Your task to perform on an android device: Show me the alarms in the clock app Image 0: 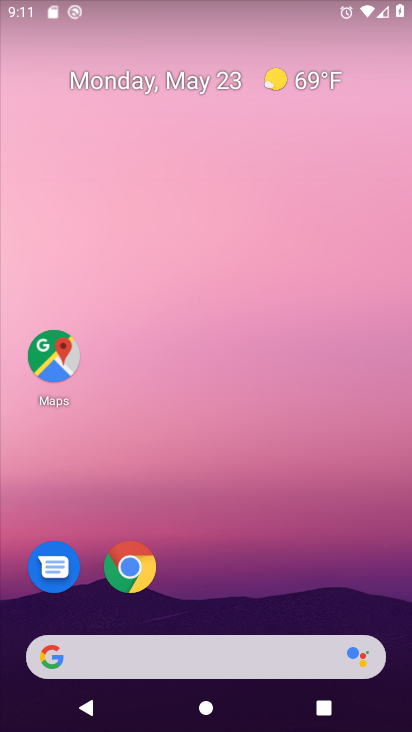
Step 0: drag from (248, 608) to (276, 352)
Your task to perform on an android device: Show me the alarms in the clock app Image 1: 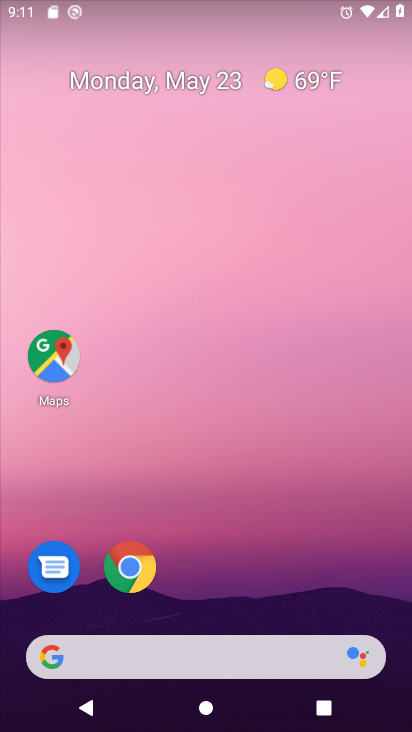
Step 1: drag from (224, 578) to (260, 47)
Your task to perform on an android device: Show me the alarms in the clock app Image 2: 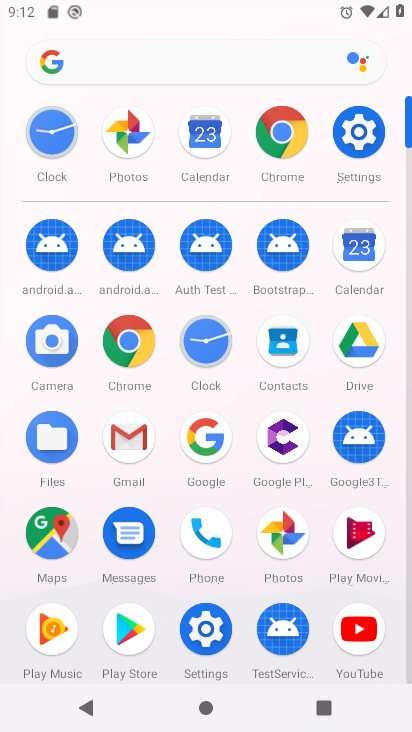
Step 2: click (203, 333)
Your task to perform on an android device: Show me the alarms in the clock app Image 3: 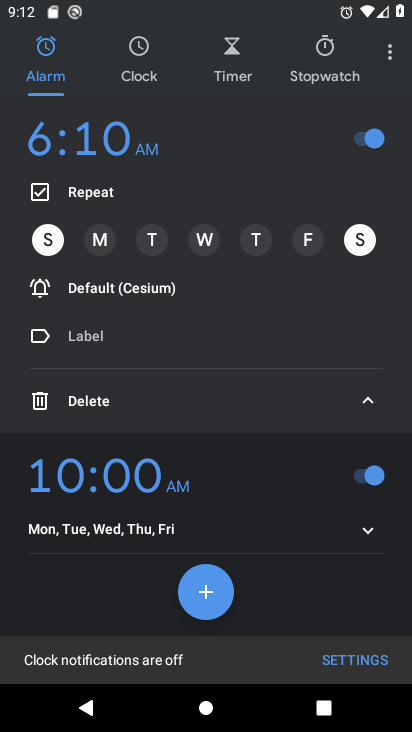
Step 3: click (369, 402)
Your task to perform on an android device: Show me the alarms in the clock app Image 4: 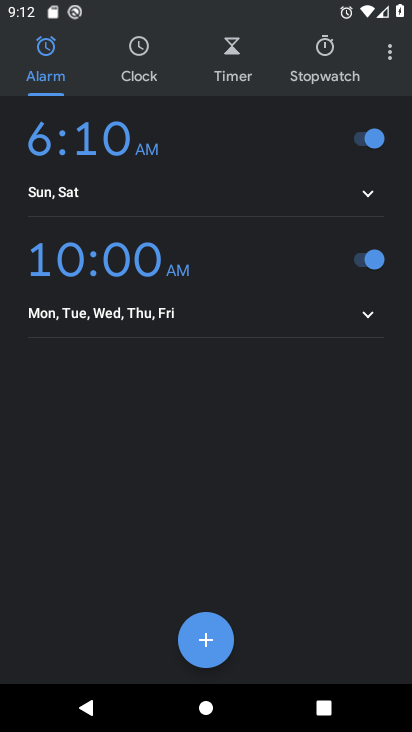
Step 4: task complete